Your task to perform on an android device: Open location settings Image 0: 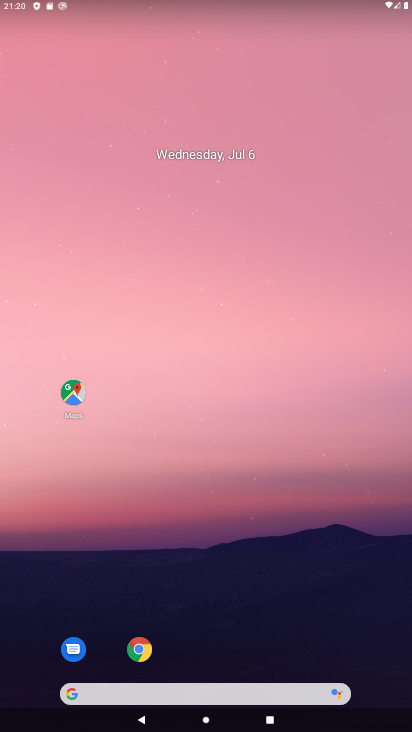
Step 0: click (220, 263)
Your task to perform on an android device: Open location settings Image 1: 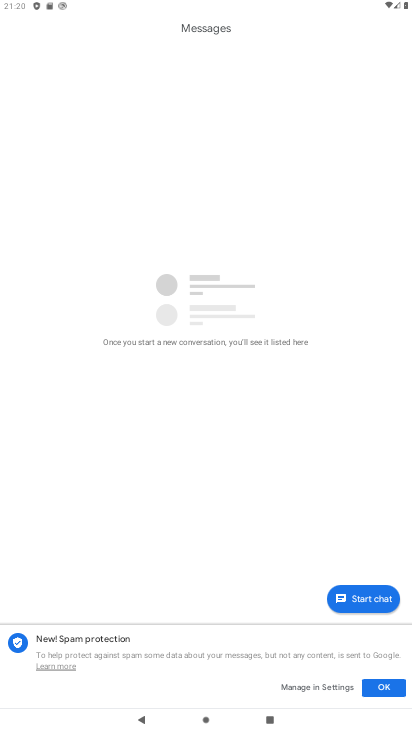
Step 1: press home button
Your task to perform on an android device: Open location settings Image 2: 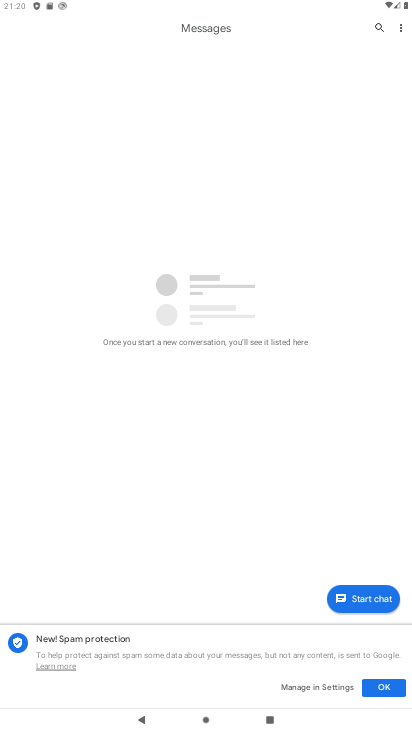
Step 2: press home button
Your task to perform on an android device: Open location settings Image 3: 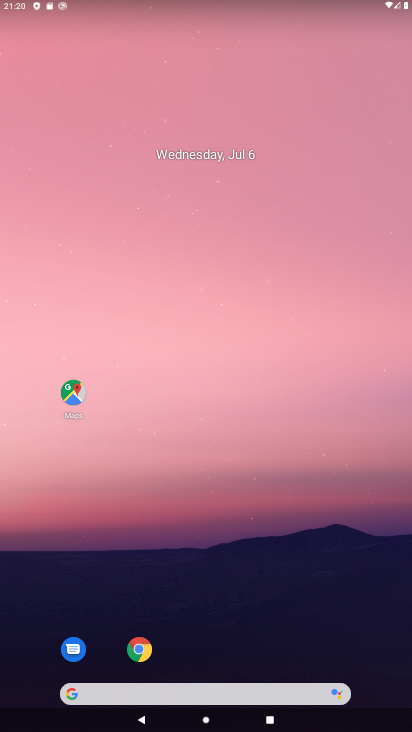
Step 3: drag from (243, 548) to (326, 218)
Your task to perform on an android device: Open location settings Image 4: 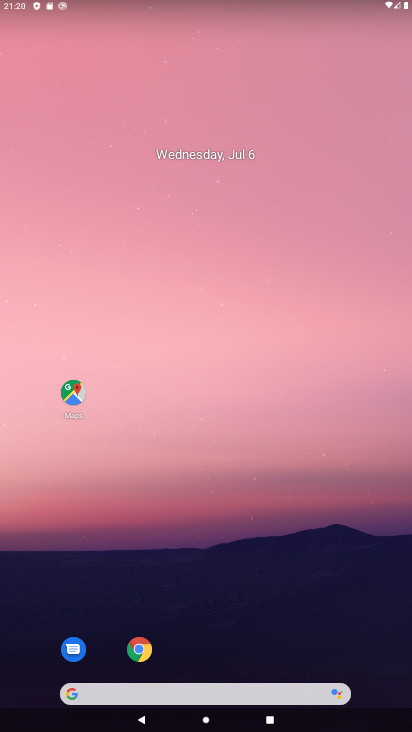
Step 4: drag from (205, 634) to (315, 126)
Your task to perform on an android device: Open location settings Image 5: 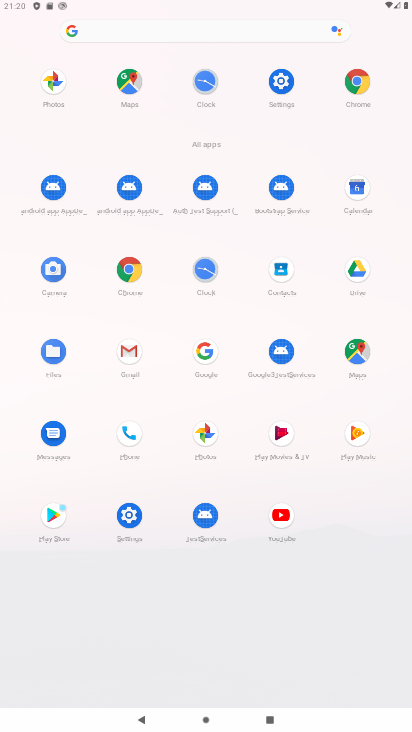
Step 5: click (118, 527)
Your task to perform on an android device: Open location settings Image 6: 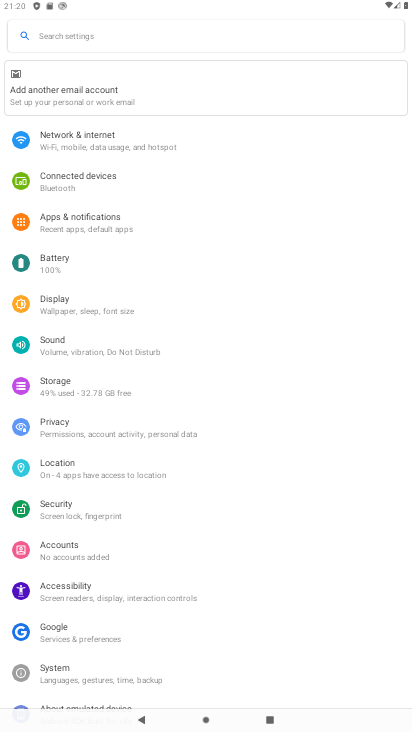
Step 6: click (79, 477)
Your task to perform on an android device: Open location settings Image 7: 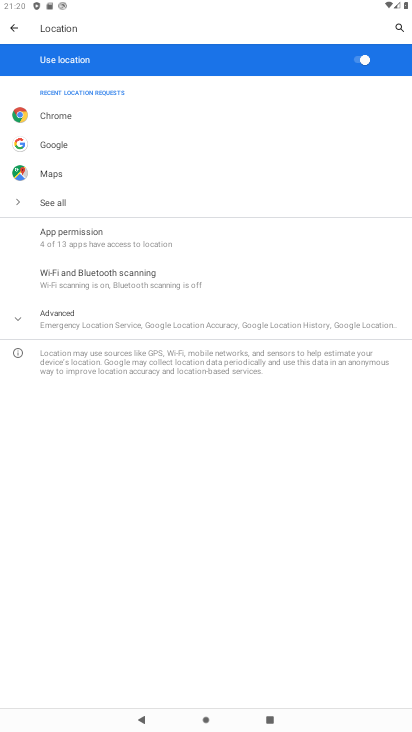
Step 7: task complete